Your task to perform on an android device: Show the shopping cart on bestbuy.com. Image 0: 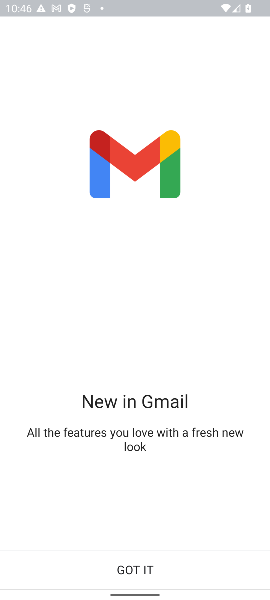
Step 0: press home button
Your task to perform on an android device: Show the shopping cart on bestbuy.com. Image 1: 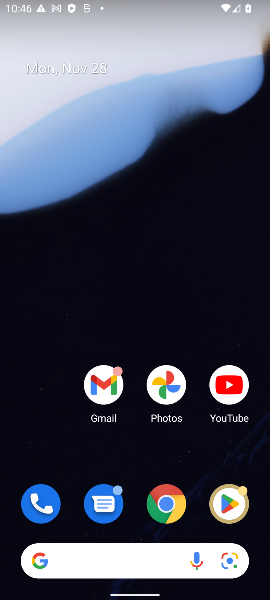
Step 1: click (168, 502)
Your task to perform on an android device: Show the shopping cart on bestbuy.com. Image 2: 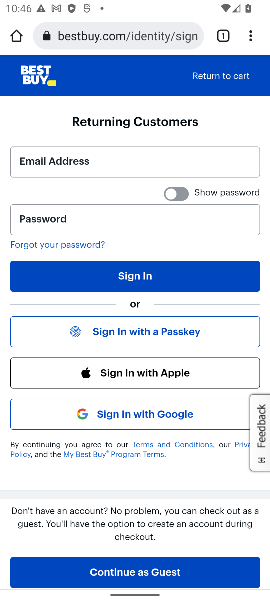
Step 2: click (221, 81)
Your task to perform on an android device: Show the shopping cart on bestbuy.com. Image 3: 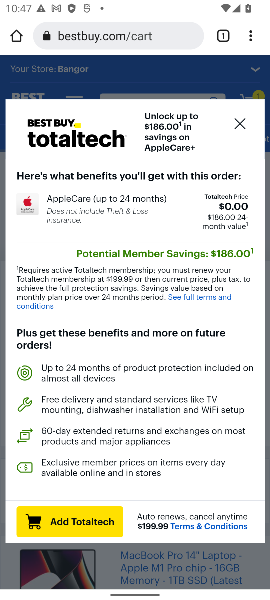
Step 3: click (235, 131)
Your task to perform on an android device: Show the shopping cart on bestbuy.com. Image 4: 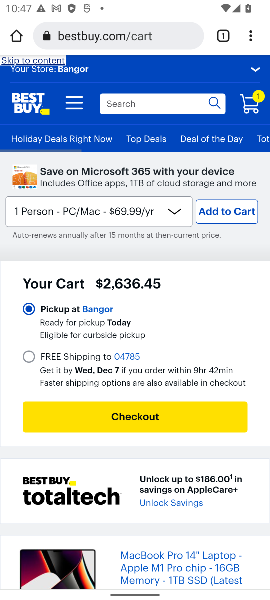
Step 4: task complete